Your task to perform on an android device: What's the weather going to be tomorrow? Image 0: 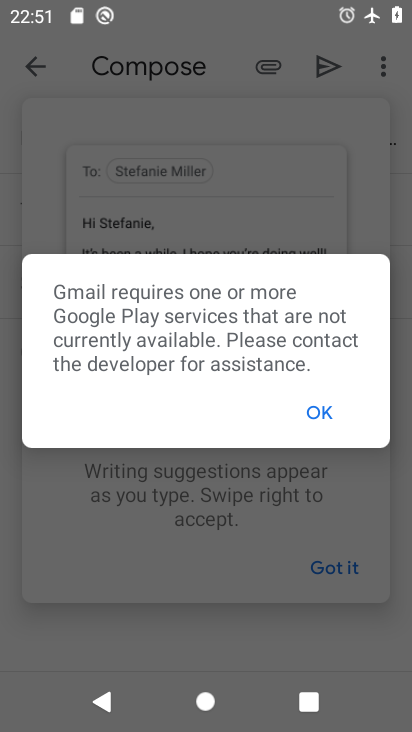
Step 0: press home button
Your task to perform on an android device: What's the weather going to be tomorrow? Image 1: 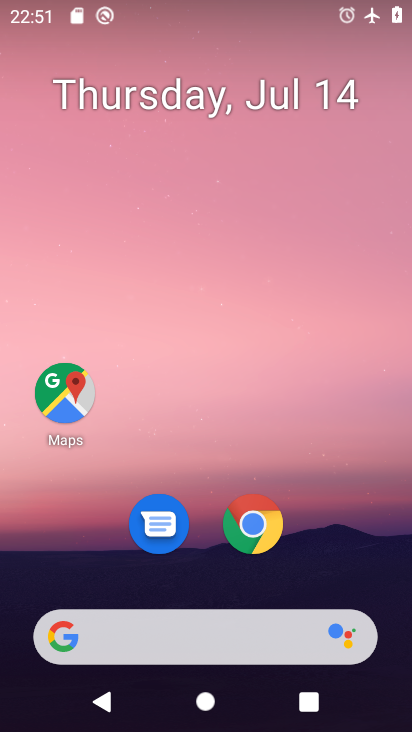
Step 1: click (239, 644)
Your task to perform on an android device: What's the weather going to be tomorrow? Image 2: 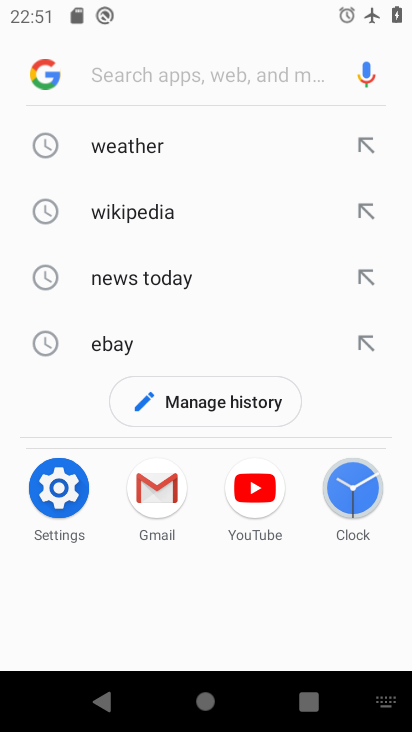
Step 2: click (117, 143)
Your task to perform on an android device: What's the weather going to be tomorrow? Image 3: 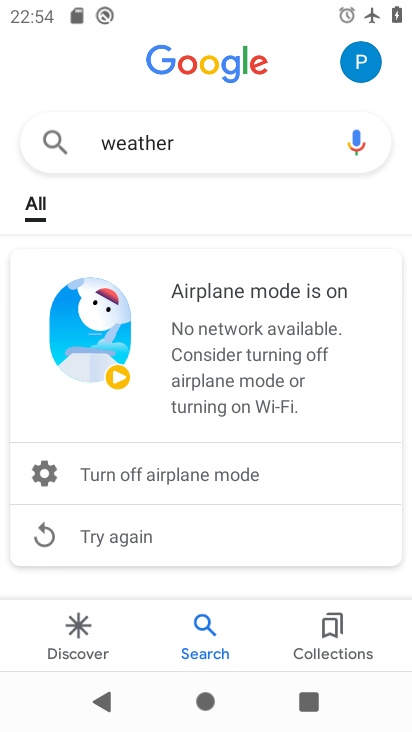
Step 3: task complete